Your task to perform on an android device: Open accessibility settings Image 0: 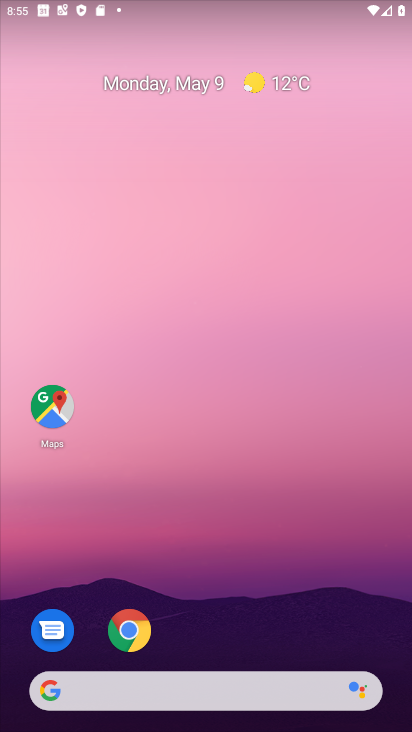
Step 0: drag from (207, 671) to (198, 247)
Your task to perform on an android device: Open accessibility settings Image 1: 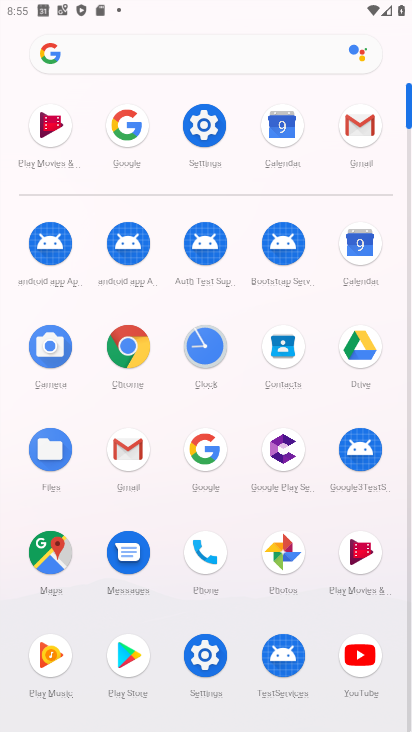
Step 1: click (192, 125)
Your task to perform on an android device: Open accessibility settings Image 2: 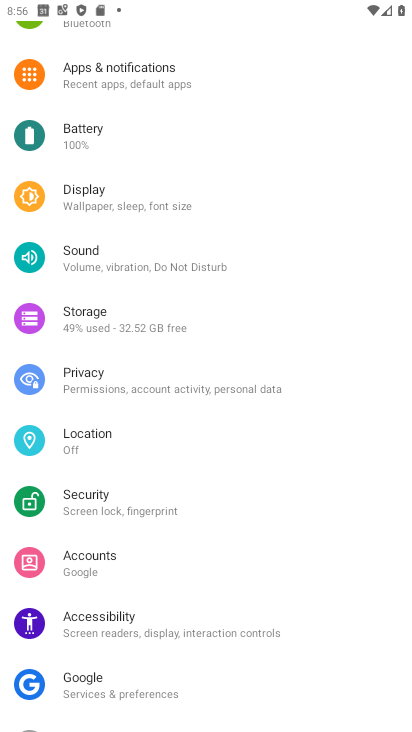
Step 2: click (87, 624)
Your task to perform on an android device: Open accessibility settings Image 3: 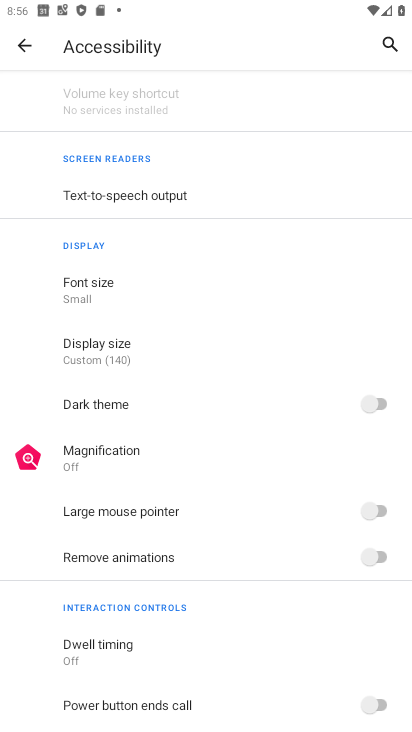
Step 3: task complete